Your task to perform on an android device: clear history in the chrome app Image 0: 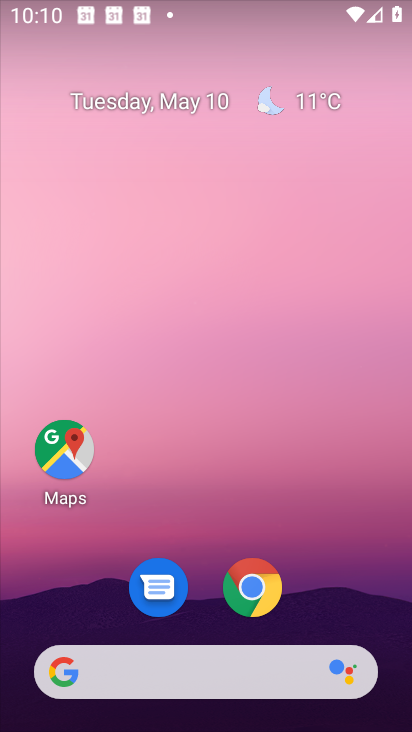
Step 0: drag from (348, 594) to (359, 149)
Your task to perform on an android device: clear history in the chrome app Image 1: 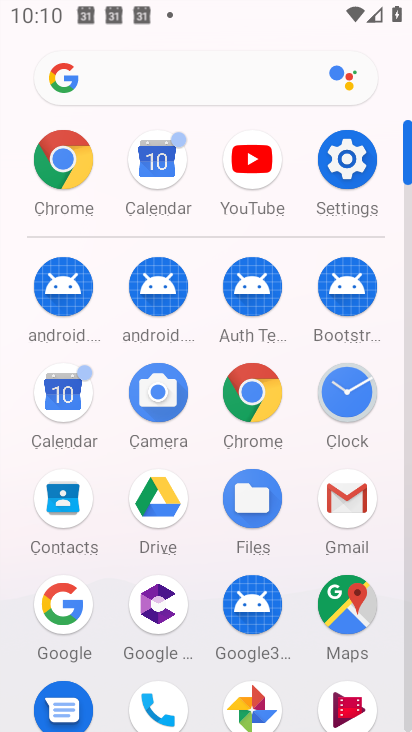
Step 1: click (260, 407)
Your task to perform on an android device: clear history in the chrome app Image 2: 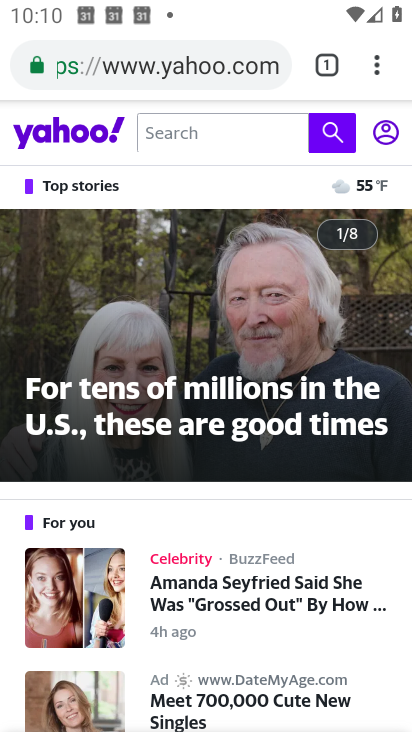
Step 2: drag from (383, 79) to (252, 367)
Your task to perform on an android device: clear history in the chrome app Image 3: 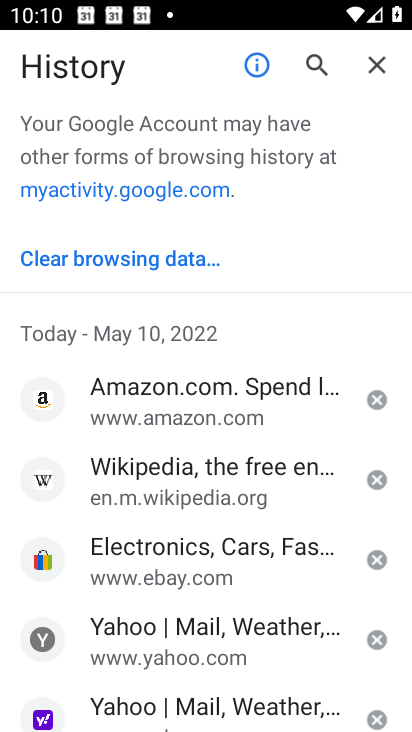
Step 3: click (195, 267)
Your task to perform on an android device: clear history in the chrome app Image 4: 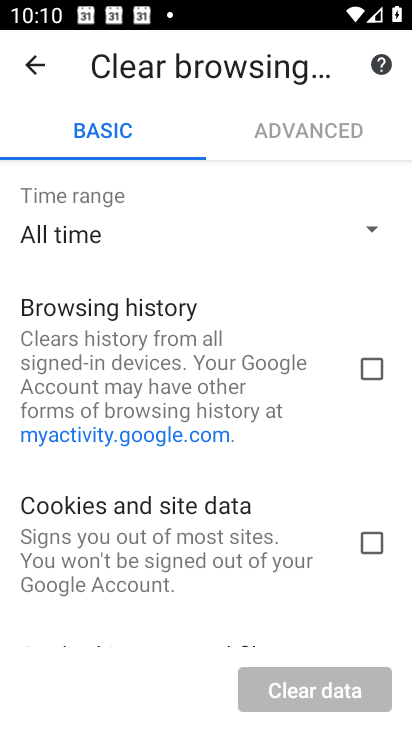
Step 4: click (376, 368)
Your task to perform on an android device: clear history in the chrome app Image 5: 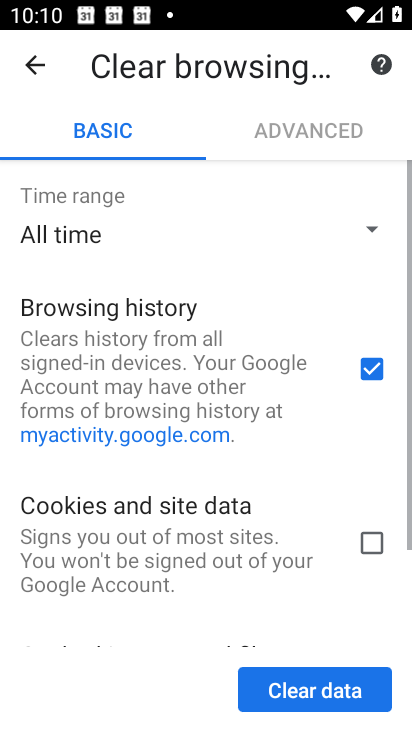
Step 5: click (309, 696)
Your task to perform on an android device: clear history in the chrome app Image 6: 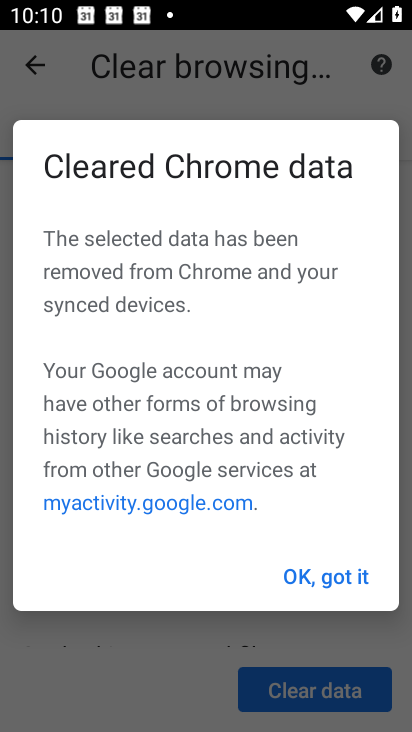
Step 6: click (297, 585)
Your task to perform on an android device: clear history in the chrome app Image 7: 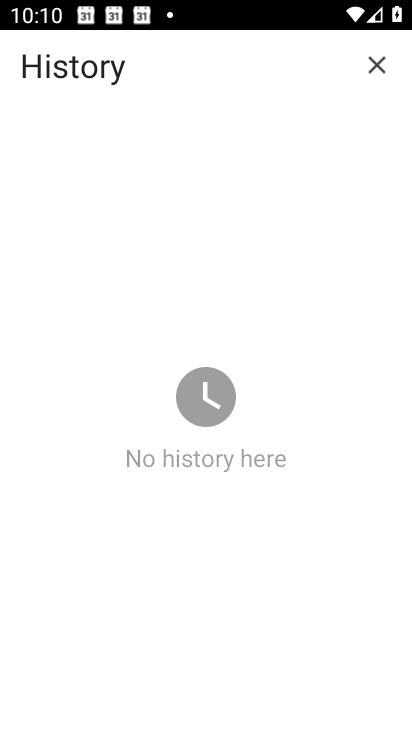
Step 7: task complete